Your task to perform on an android device: Open calendar and show me the third week of next month Image 0: 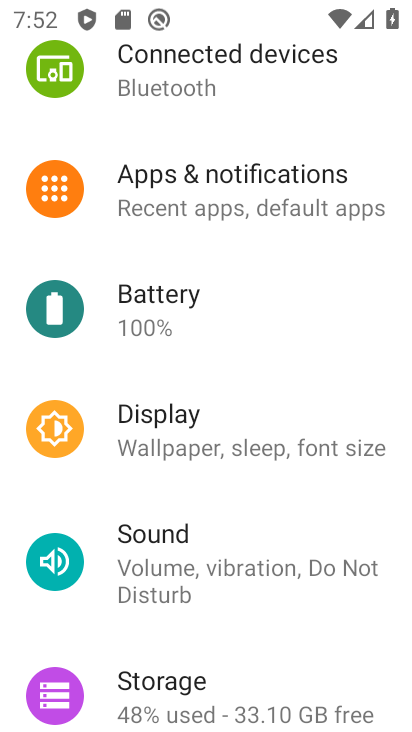
Step 0: press home button
Your task to perform on an android device: Open calendar and show me the third week of next month Image 1: 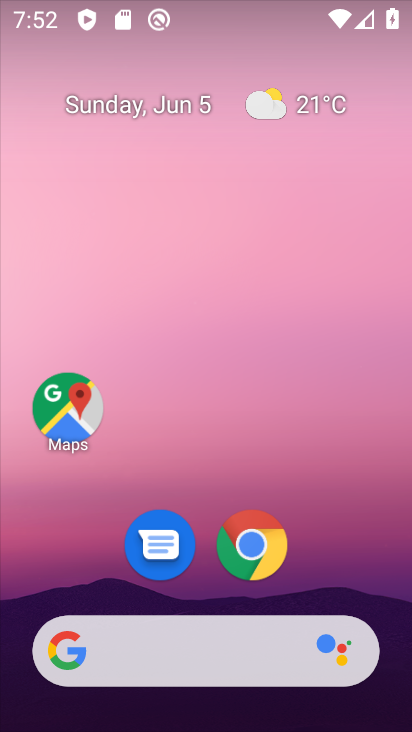
Step 1: drag from (329, 547) to (209, 74)
Your task to perform on an android device: Open calendar and show me the third week of next month Image 2: 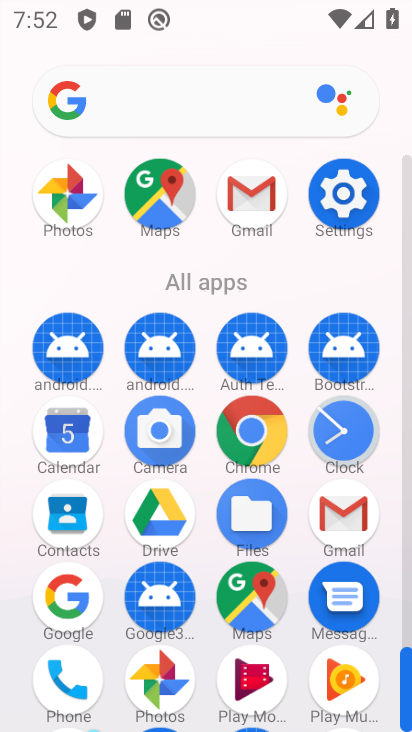
Step 2: click (69, 433)
Your task to perform on an android device: Open calendar and show me the third week of next month Image 3: 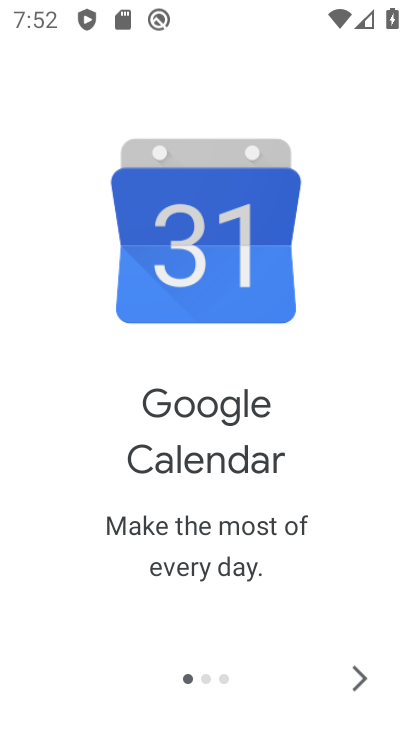
Step 3: click (360, 677)
Your task to perform on an android device: Open calendar and show me the third week of next month Image 4: 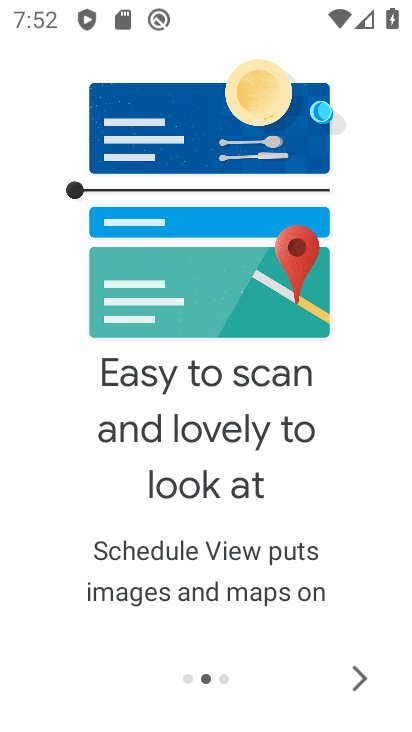
Step 4: click (360, 677)
Your task to perform on an android device: Open calendar and show me the third week of next month Image 5: 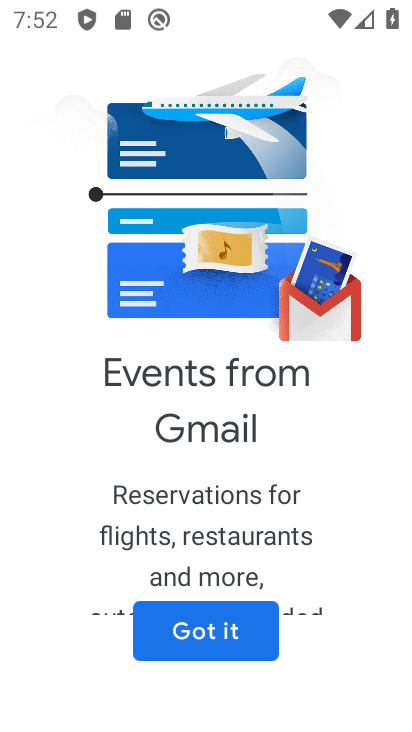
Step 5: click (211, 639)
Your task to perform on an android device: Open calendar and show me the third week of next month Image 6: 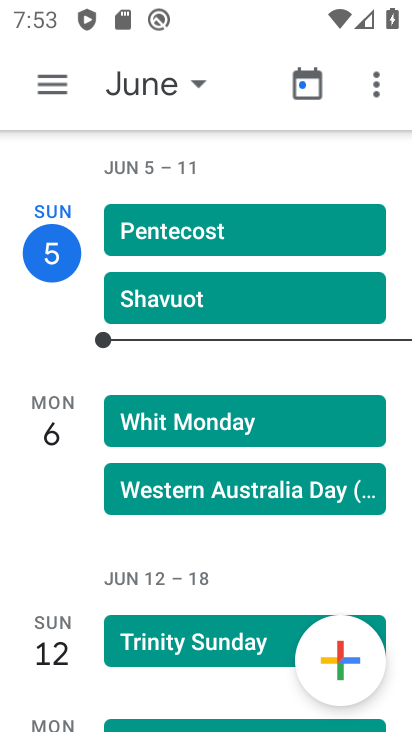
Step 6: click (198, 82)
Your task to perform on an android device: Open calendar and show me the third week of next month Image 7: 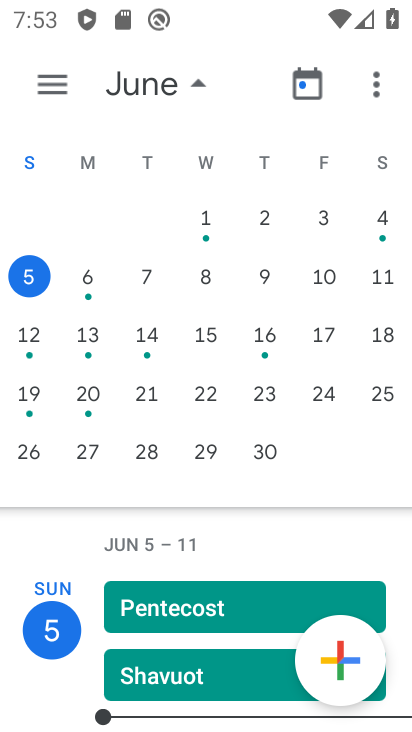
Step 7: drag from (363, 303) to (0, 273)
Your task to perform on an android device: Open calendar and show me the third week of next month Image 8: 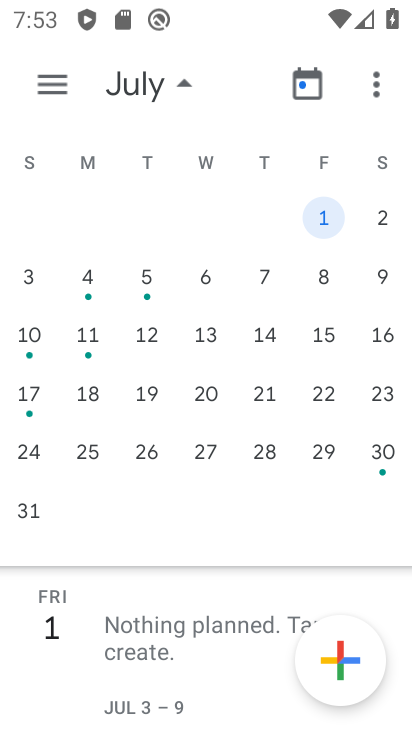
Step 8: click (98, 401)
Your task to perform on an android device: Open calendar and show me the third week of next month Image 9: 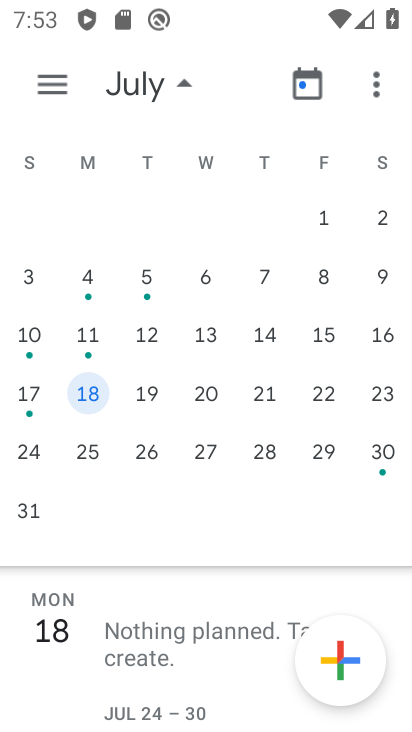
Step 9: click (53, 91)
Your task to perform on an android device: Open calendar and show me the third week of next month Image 10: 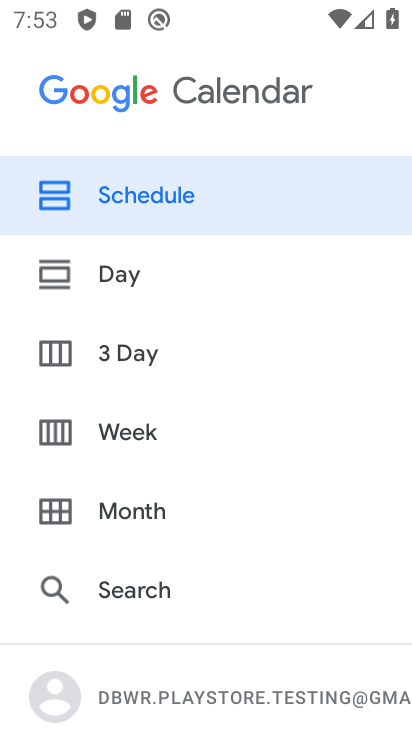
Step 10: click (146, 429)
Your task to perform on an android device: Open calendar and show me the third week of next month Image 11: 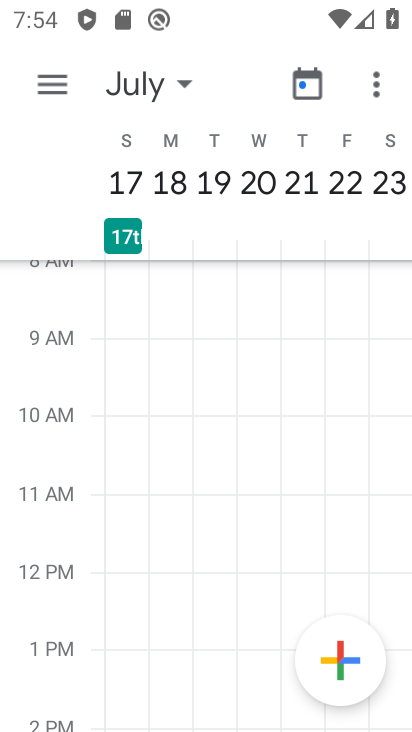
Step 11: task complete